Your task to perform on an android device: turn on sleep mode Image 0: 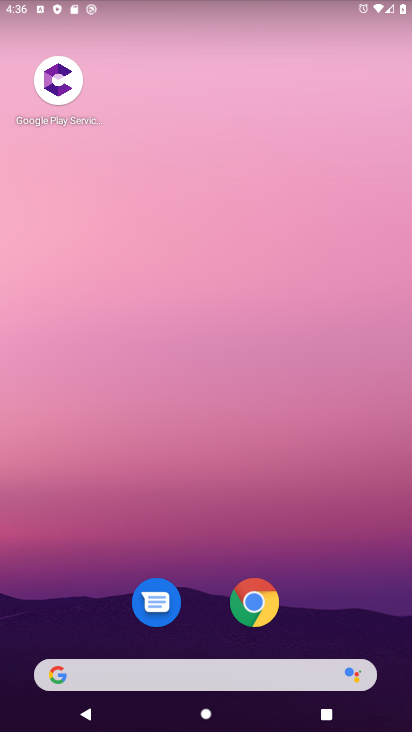
Step 0: drag from (203, 658) to (242, 266)
Your task to perform on an android device: turn on sleep mode Image 1: 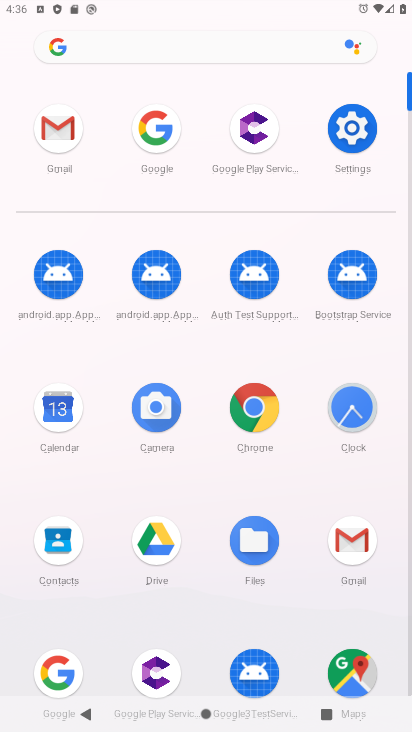
Step 1: click (354, 128)
Your task to perform on an android device: turn on sleep mode Image 2: 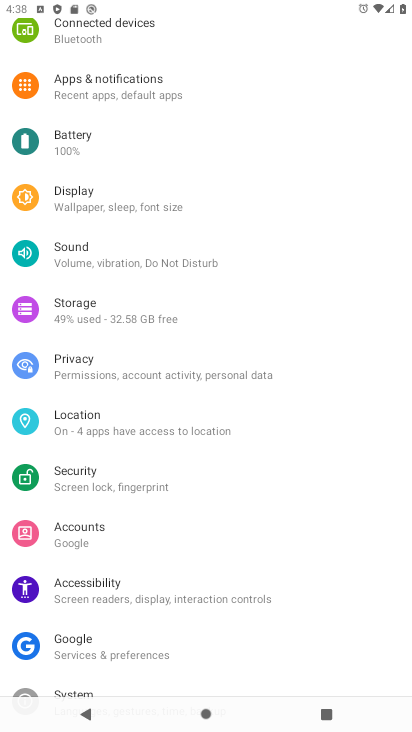
Step 2: click (120, 203)
Your task to perform on an android device: turn on sleep mode Image 3: 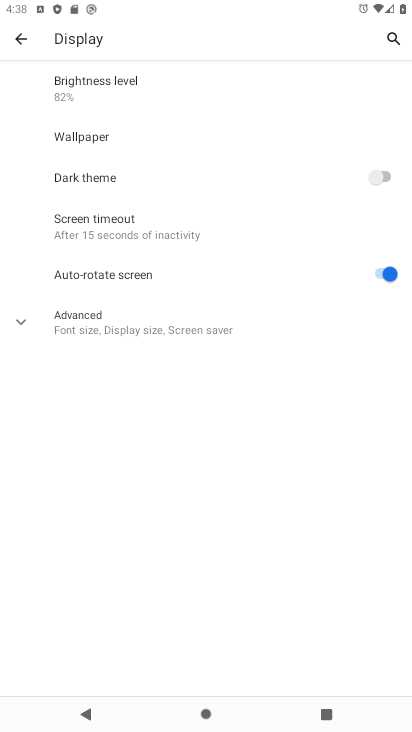
Step 3: click (146, 321)
Your task to perform on an android device: turn on sleep mode Image 4: 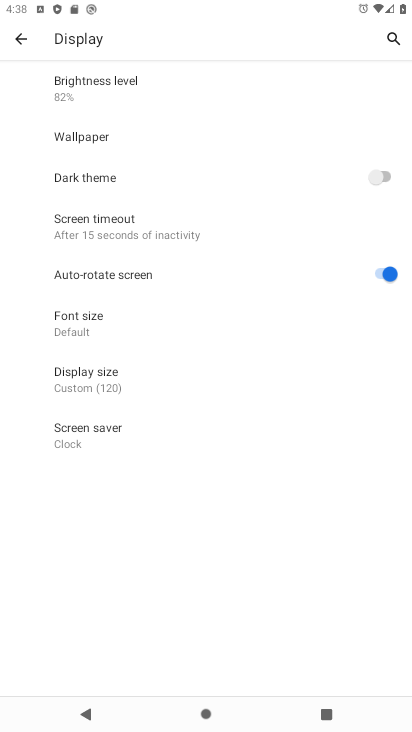
Step 4: click (122, 230)
Your task to perform on an android device: turn on sleep mode Image 5: 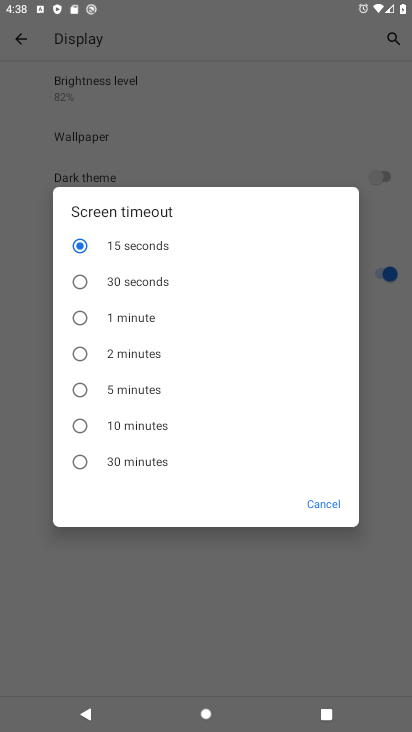
Step 5: click (136, 392)
Your task to perform on an android device: turn on sleep mode Image 6: 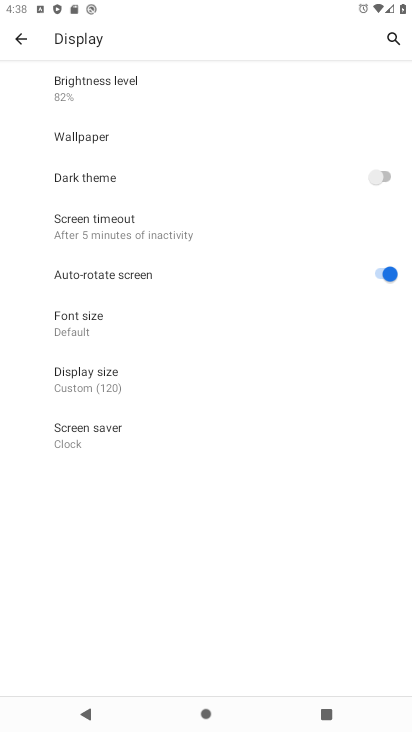
Step 6: task complete